Your task to perform on an android device: check google app version Image 0: 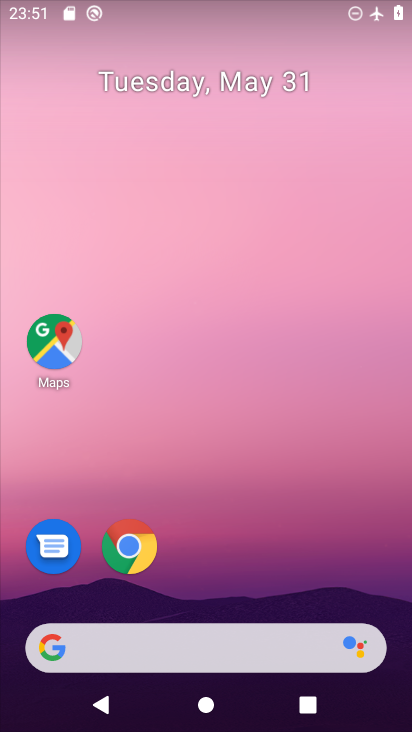
Step 0: drag from (388, 686) to (320, 88)
Your task to perform on an android device: check google app version Image 1: 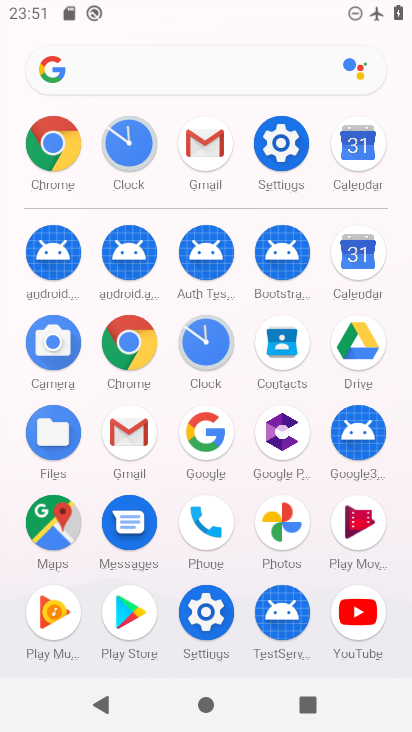
Step 1: click (193, 437)
Your task to perform on an android device: check google app version Image 2: 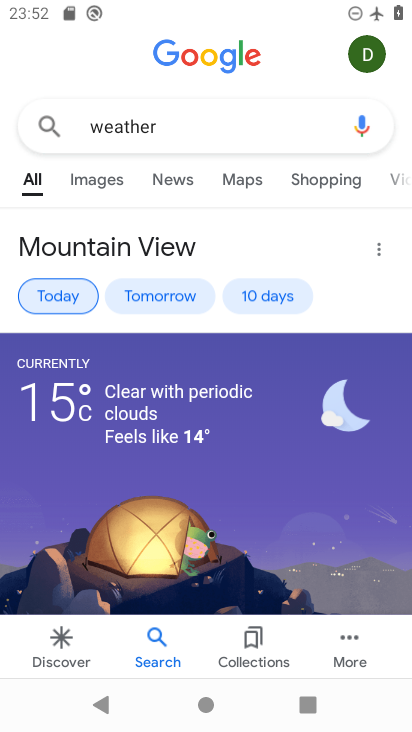
Step 2: click (352, 654)
Your task to perform on an android device: check google app version Image 3: 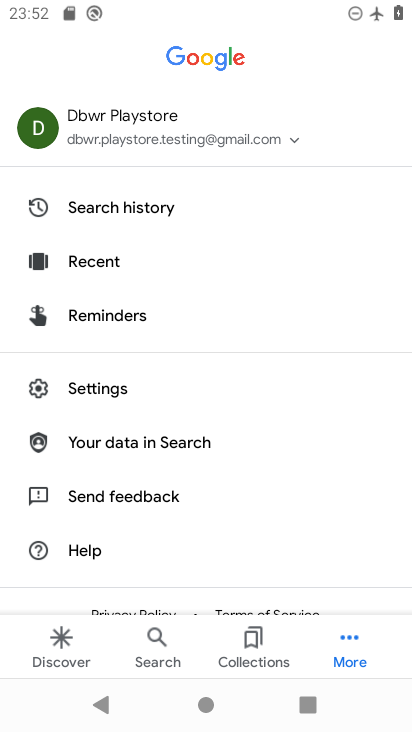
Step 3: click (78, 384)
Your task to perform on an android device: check google app version Image 4: 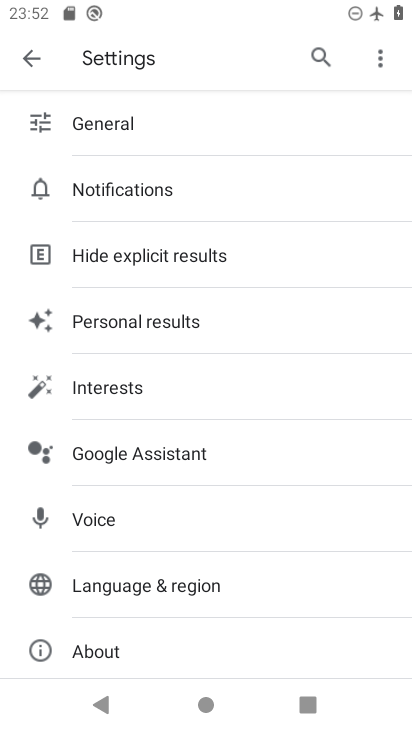
Step 4: click (99, 649)
Your task to perform on an android device: check google app version Image 5: 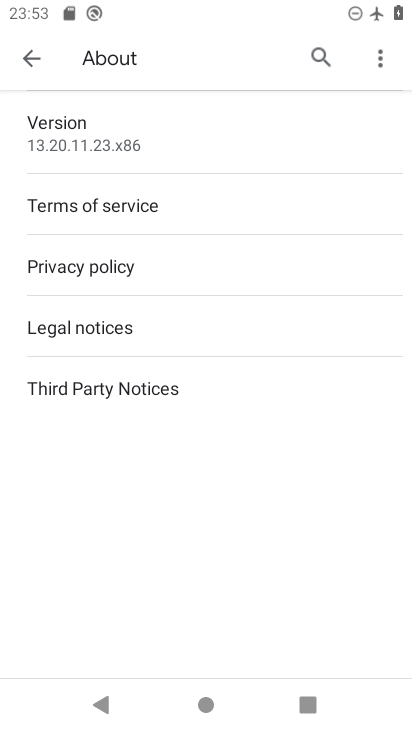
Step 5: click (71, 128)
Your task to perform on an android device: check google app version Image 6: 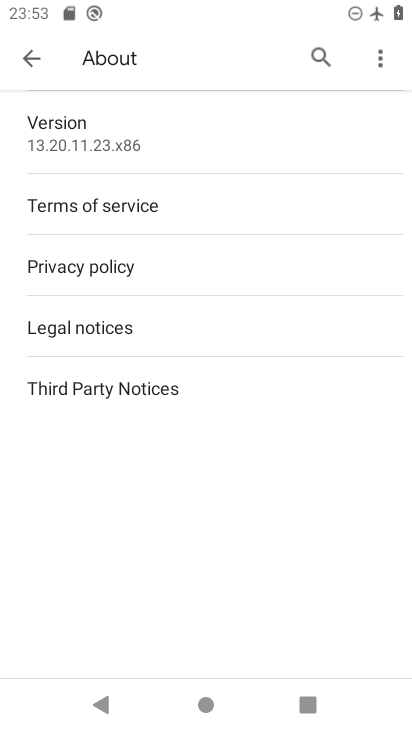
Step 6: click (94, 144)
Your task to perform on an android device: check google app version Image 7: 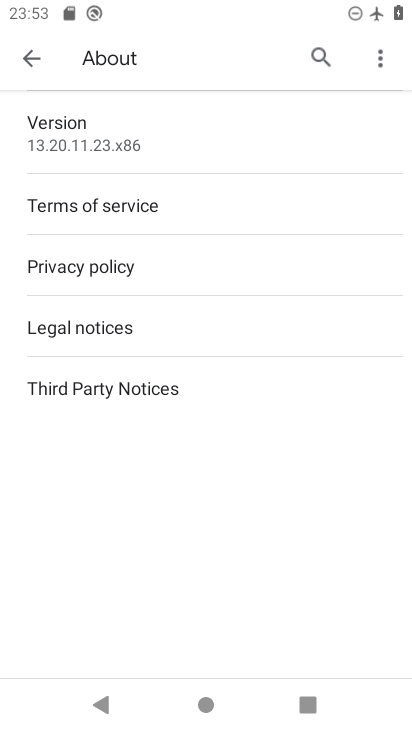
Step 7: task complete